Your task to perform on an android device: turn pop-ups on in chrome Image 0: 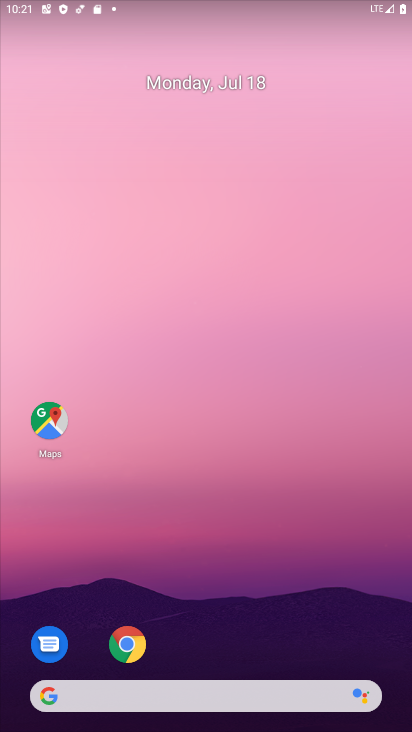
Step 0: drag from (317, 636) to (346, 176)
Your task to perform on an android device: turn pop-ups on in chrome Image 1: 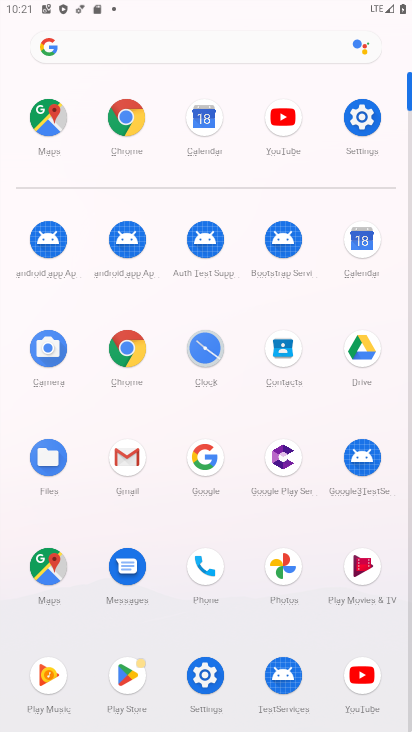
Step 1: click (131, 353)
Your task to perform on an android device: turn pop-ups on in chrome Image 2: 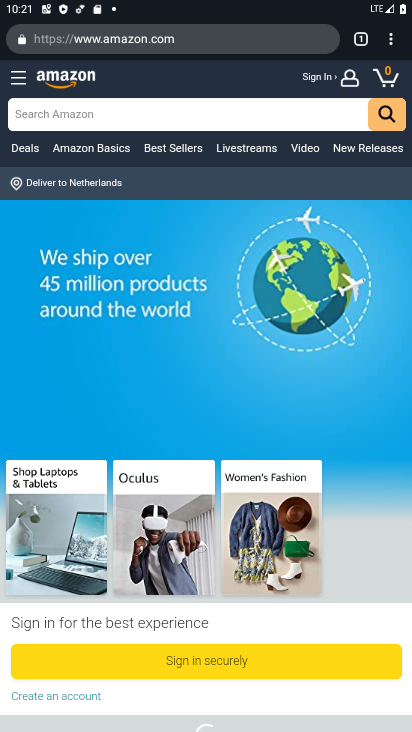
Step 2: click (387, 43)
Your task to perform on an android device: turn pop-ups on in chrome Image 3: 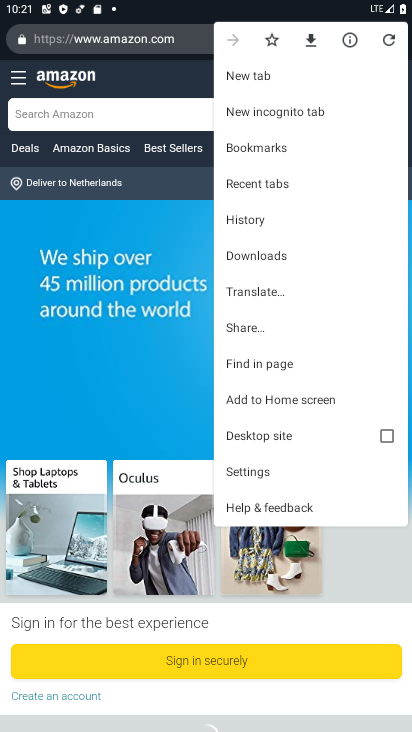
Step 3: click (297, 476)
Your task to perform on an android device: turn pop-ups on in chrome Image 4: 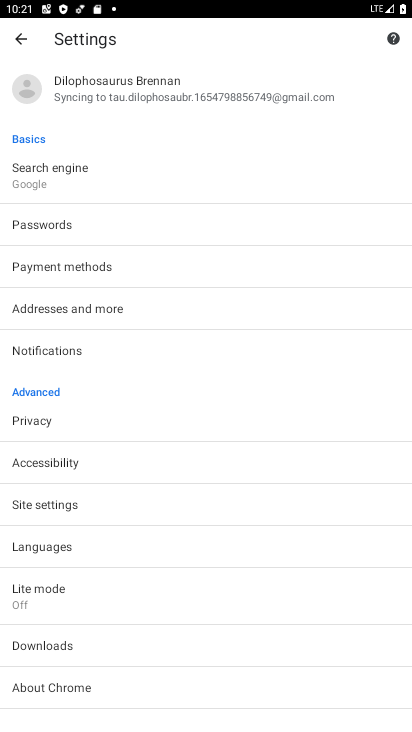
Step 4: drag from (328, 530) to (338, 436)
Your task to perform on an android device: turn pop-ups on in chrome Image 5: 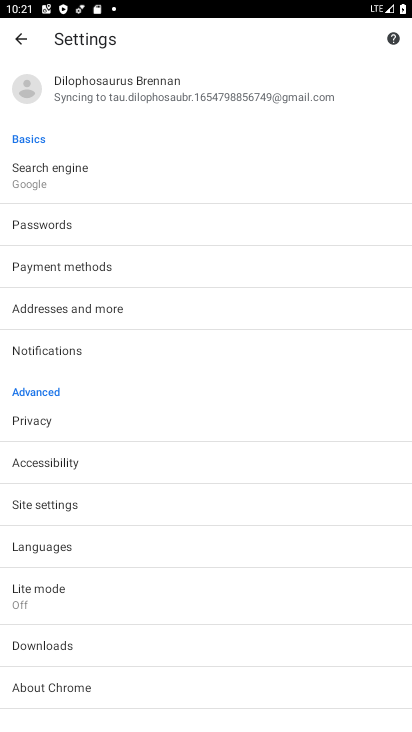
Step 5: drag from (312, 306) to (306, 409)
Your task to perform on an android device: turn pop-ups on in chrome Image 6: 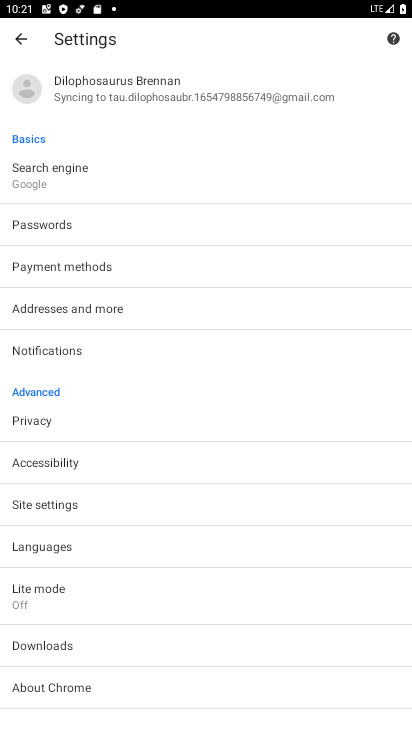
Step 6: click (245, 500)
Your task to perform on an android device: turn pop-ups on in chrome Image 7: 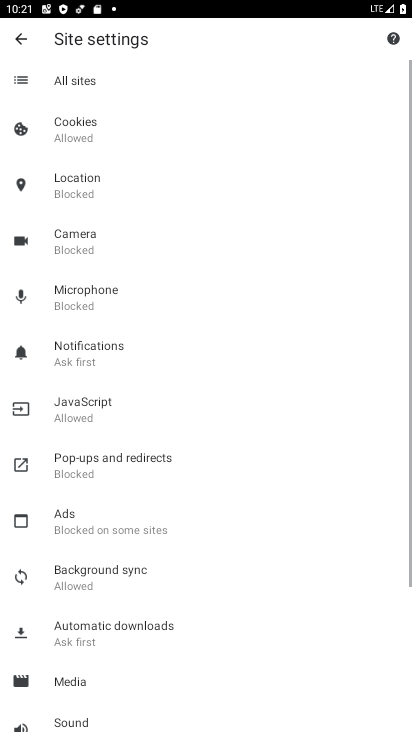
Step 7: drag from (258, 519) to (275, 432)
Your task to perform on an android device: turn pop-ups on in chrome Image 8: 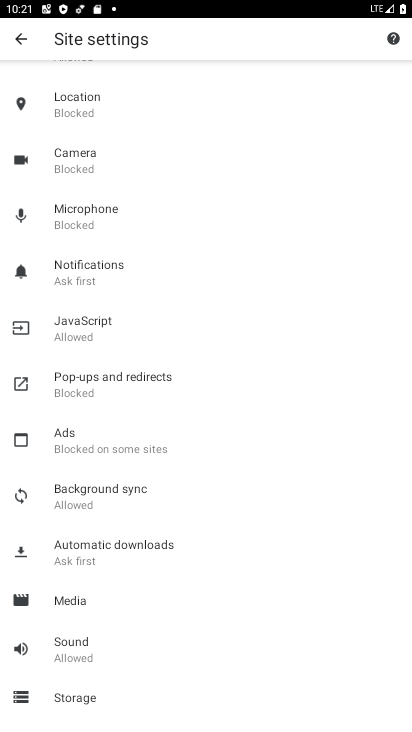
Step 8: drag from (274, 536) to (281, 463)
Your task to perform on an android device: turn pop-ups on in chrome Image 9: 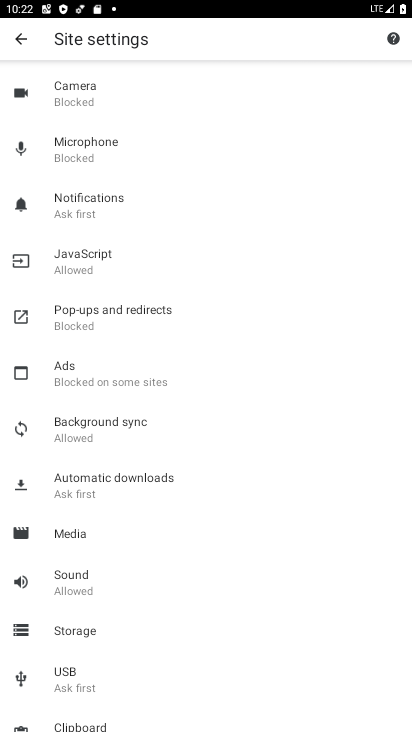
Step 9: drag from (281, 536) to (292, 457)
Your task to perform on an android device: turn pop-ups on in chrome Image 10: 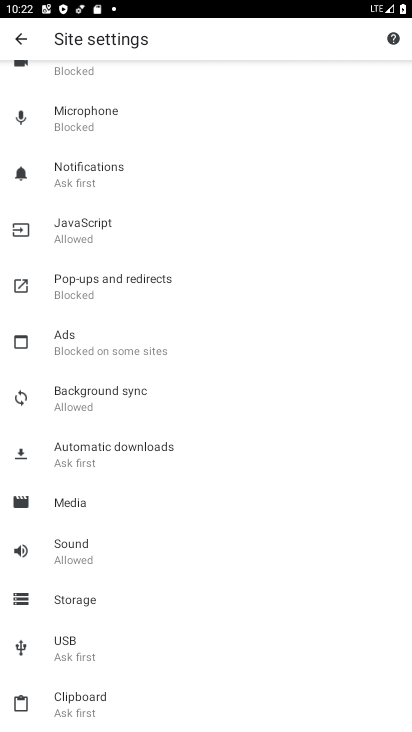
Step 10: drag from (285, 540) to (294, 438)
Your task to perform on an android device: turn pop-ups on in chrome Image 11: 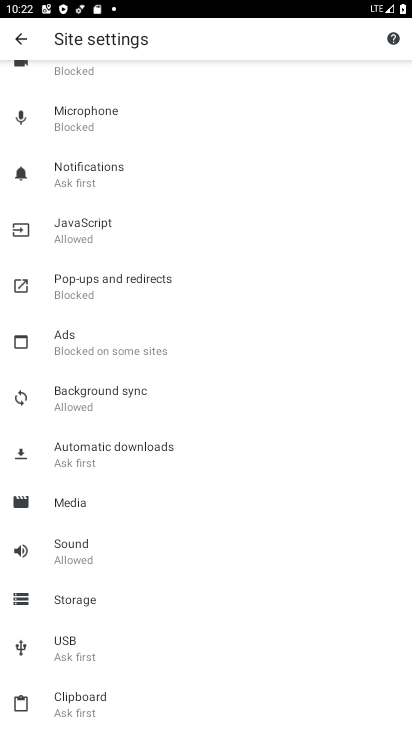
Step 11: click (161, 298)
Your task to perform on an android device: turn pop-ups on in chrome Image 12: 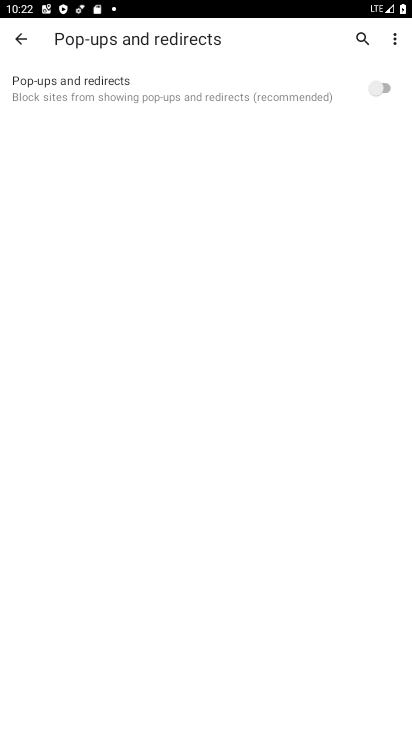
Step 12: click (383, 86)
Your task to perform on an android device: turn pop-ups on in chrome Image 13: 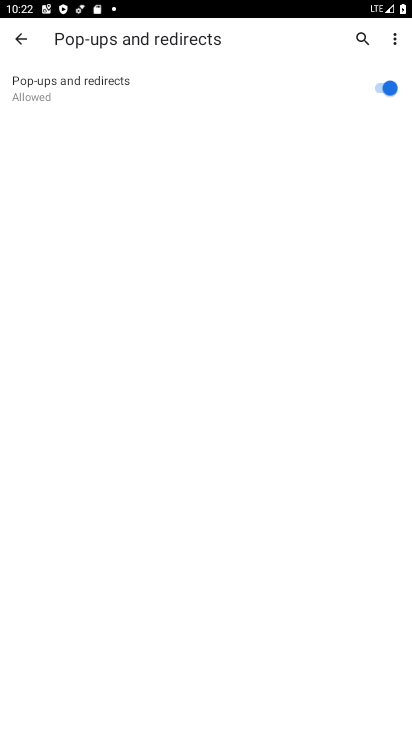
Step 13: task complete